Your task to perform on an android device: Do I have any events tomorrow? Image 0: 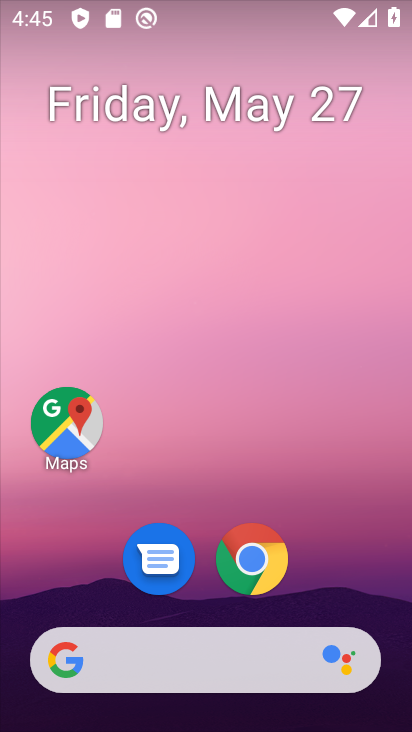
Step 0: drag from (280, 501) to (261, 168)
Your task to perform on an android device: Do I have any events tomorrow? Image 1: 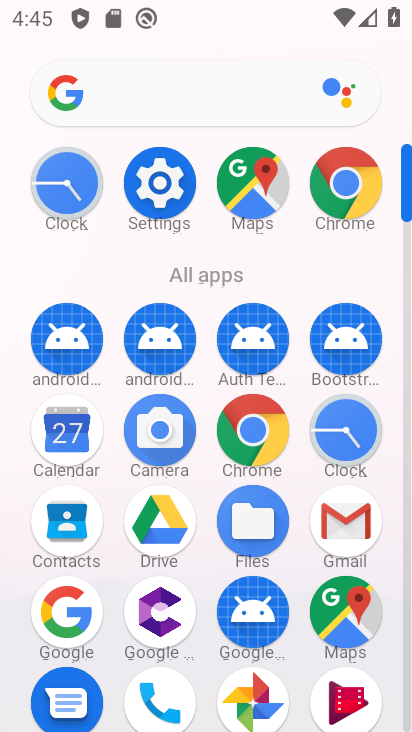
Step 1: click (62, 426)
Your task to perform on an android device: Do I have any events tomorrow? Image 2: 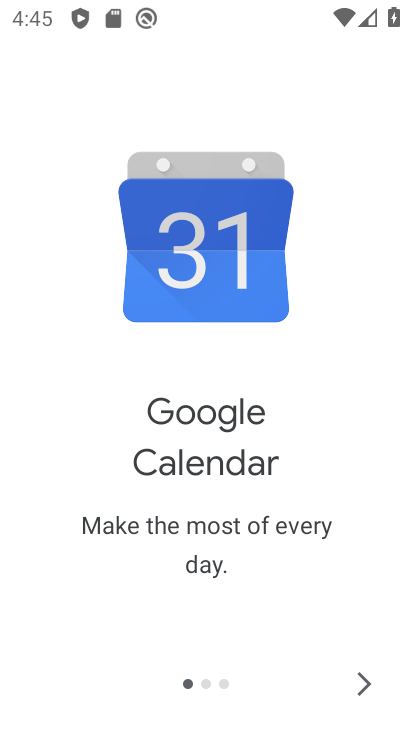
Step 2: click (368, 677)
Your task to perform on an android device: Do I have any events tomorrow? Image 3: 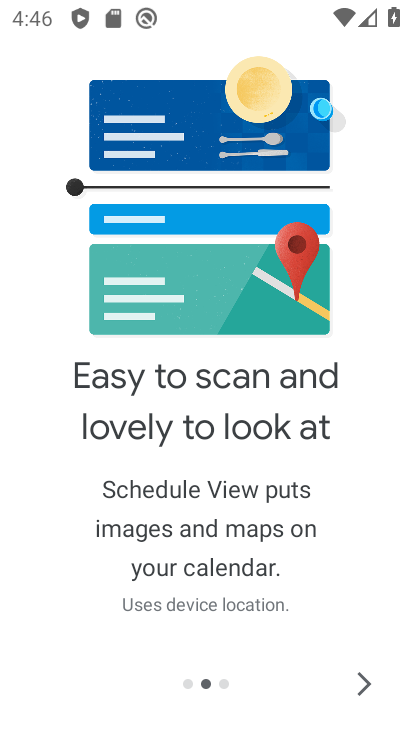
Step 3: click (368, 677)
Your task to perform on an android device: Do I have any events tomorrow? Image 4: 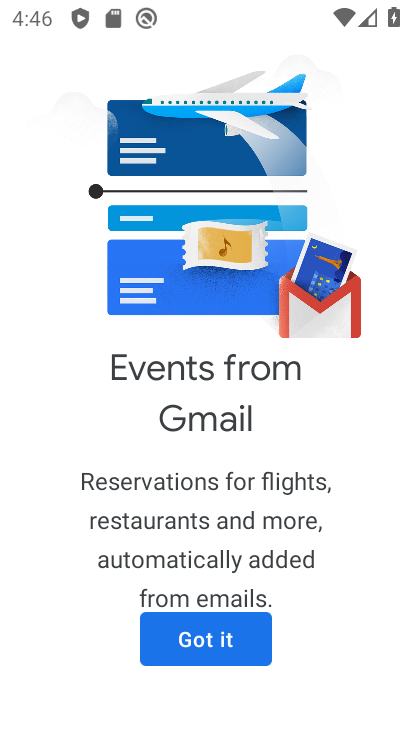
Step 4: click (224, 623)
Your task to perform on an android device: Do I have any events tomorrow? Image 5: 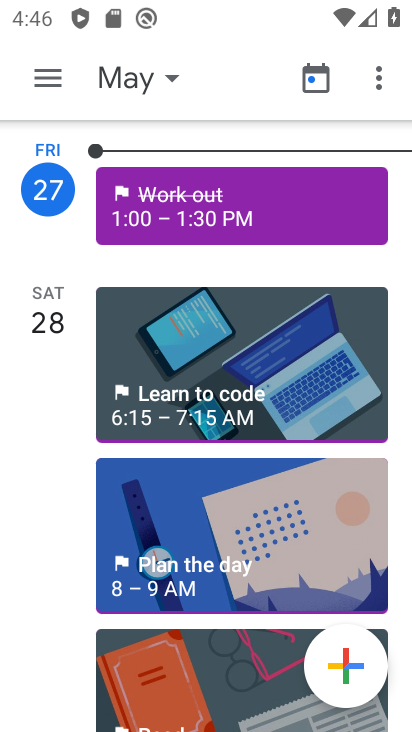
Step 5: click (147, 72)
Your task to perform on an android device: Do I have any events tomorrow? Image 6: 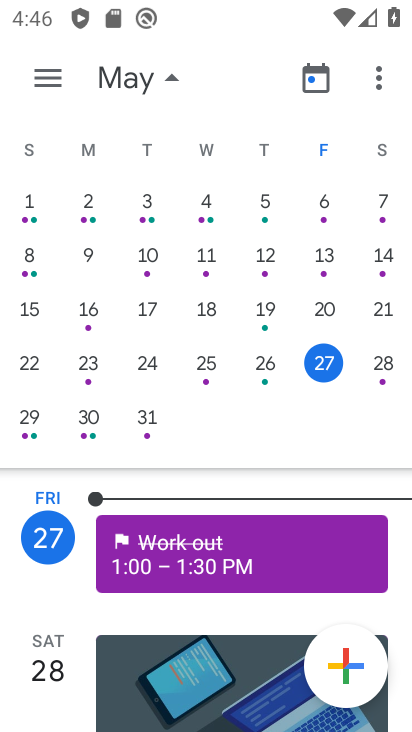
Step 6: click (376, 367)
Your task to perform on an android device: Do I have any events tomorrow? Image 7: 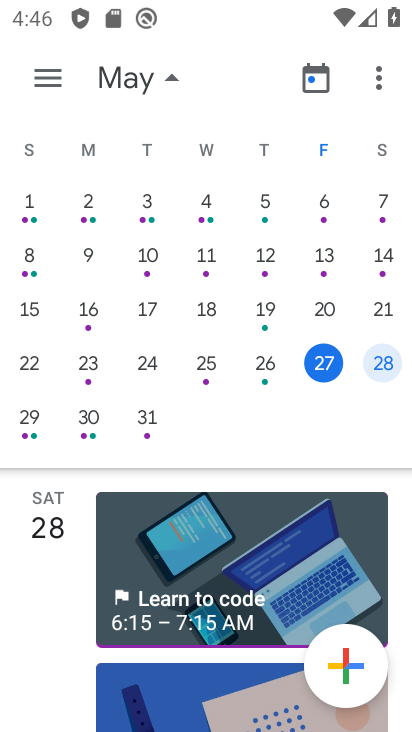
Step 7: task complete